Your task to perform on an android device: Go to ESPN.com Image 0: 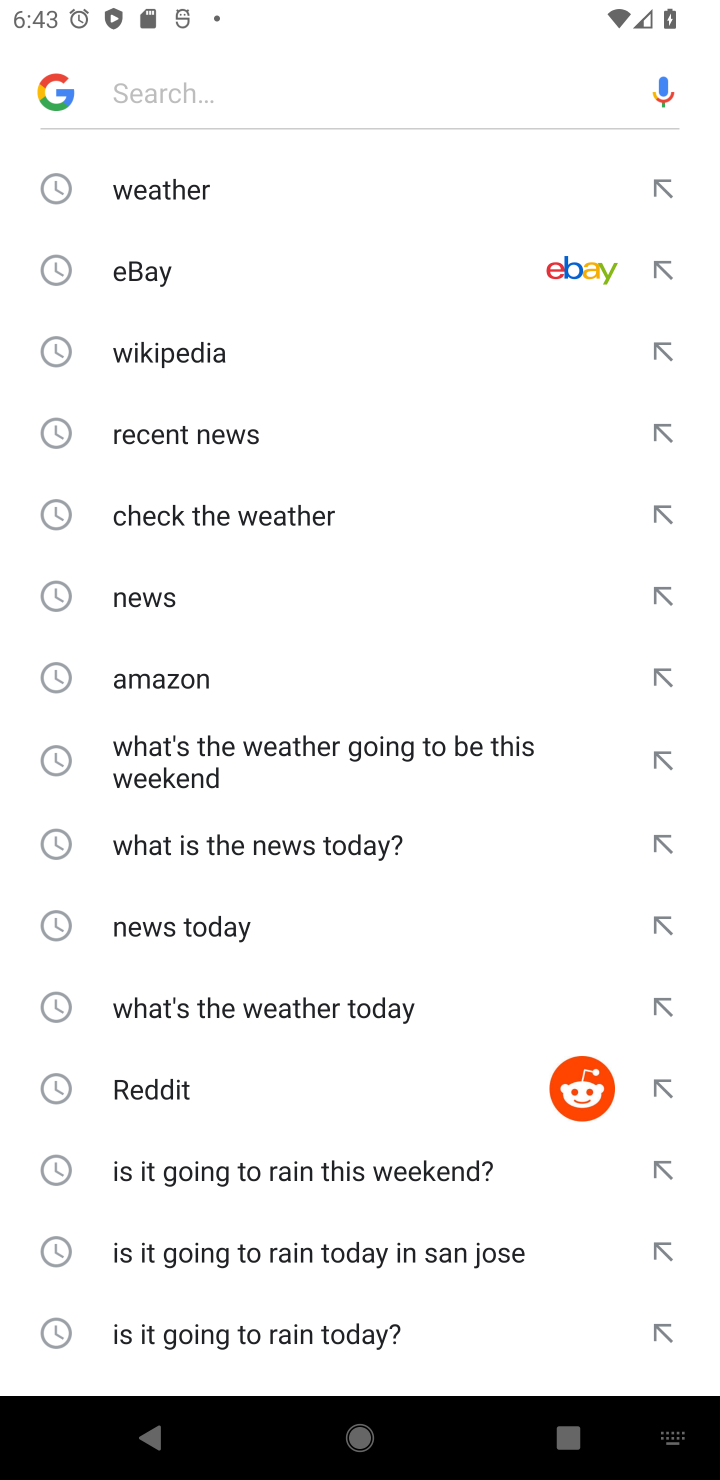
Step 0: press home button
Your task to perform on an android device: Go to ESPN.com Image 1: 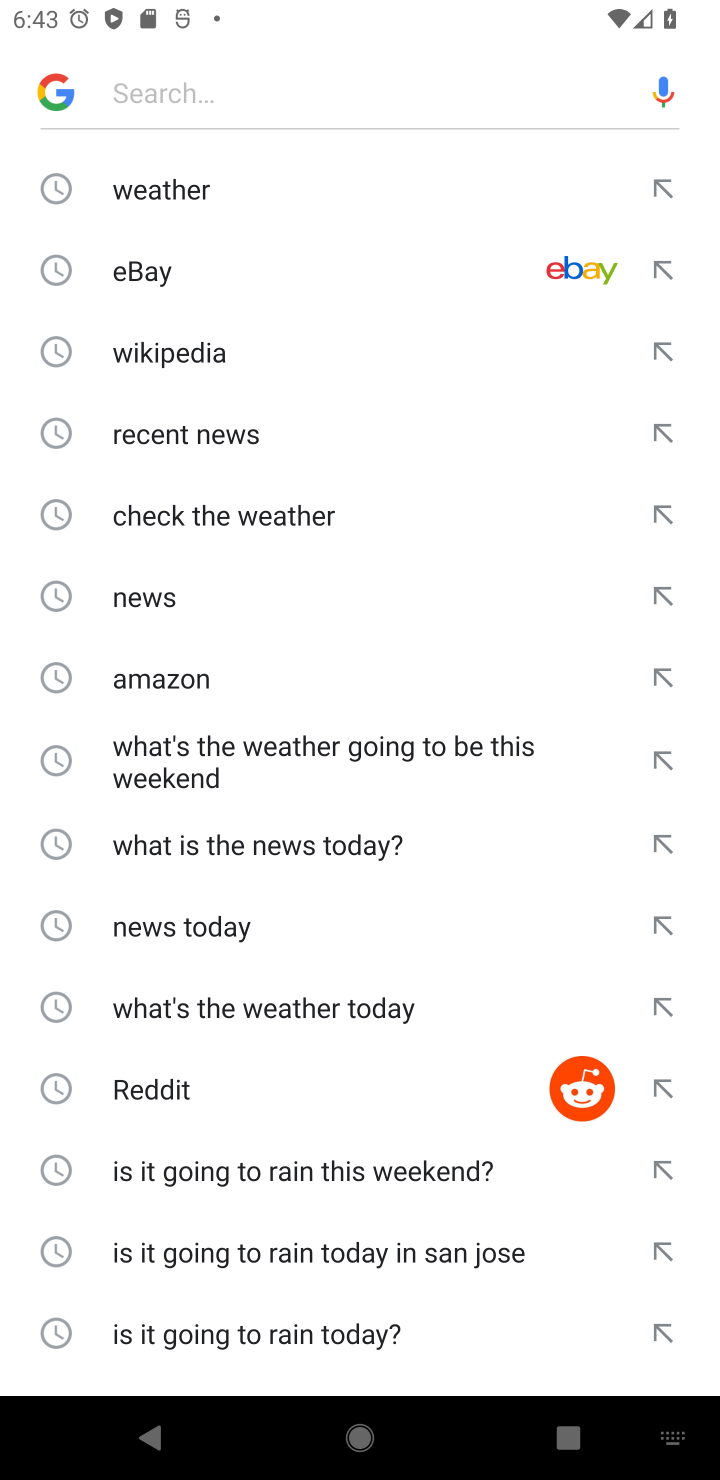
Step 1: type "espn"
Your task to perform on an android device: Go to ESPN.com Image 2: 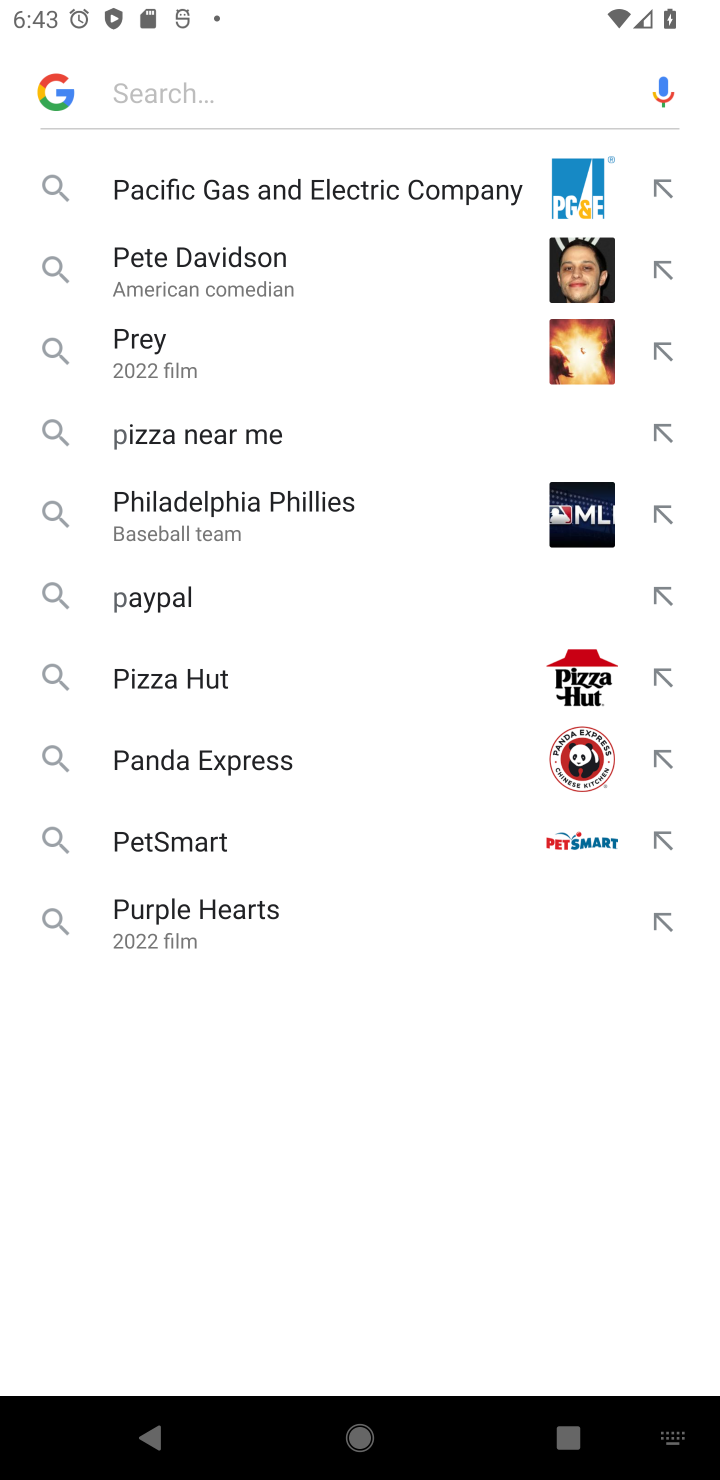
Step 2: press home button
Your task to perform on an android device: Go to ESPN.com Image 3: 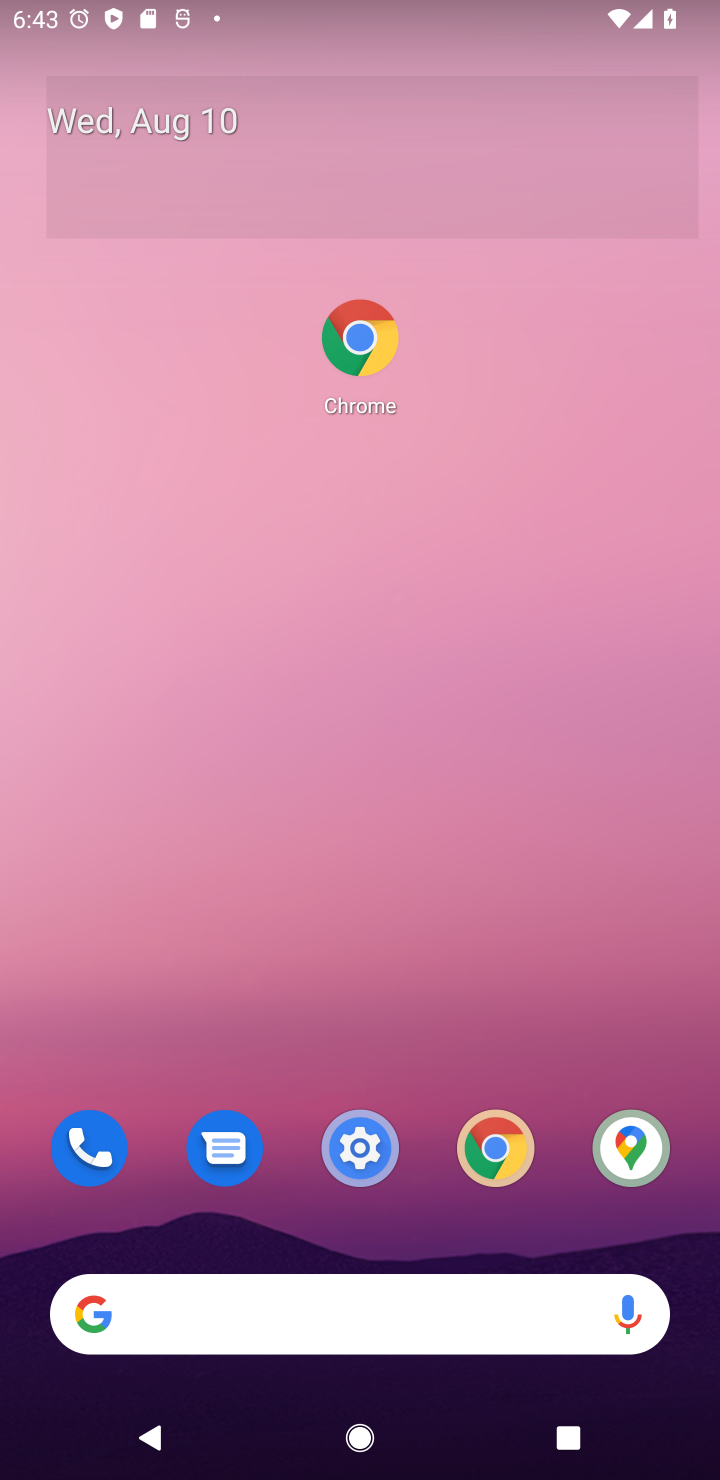
Step 3: click (486, 1145)
Your task to perform on an android device: Go to ESPN.com Image 4: 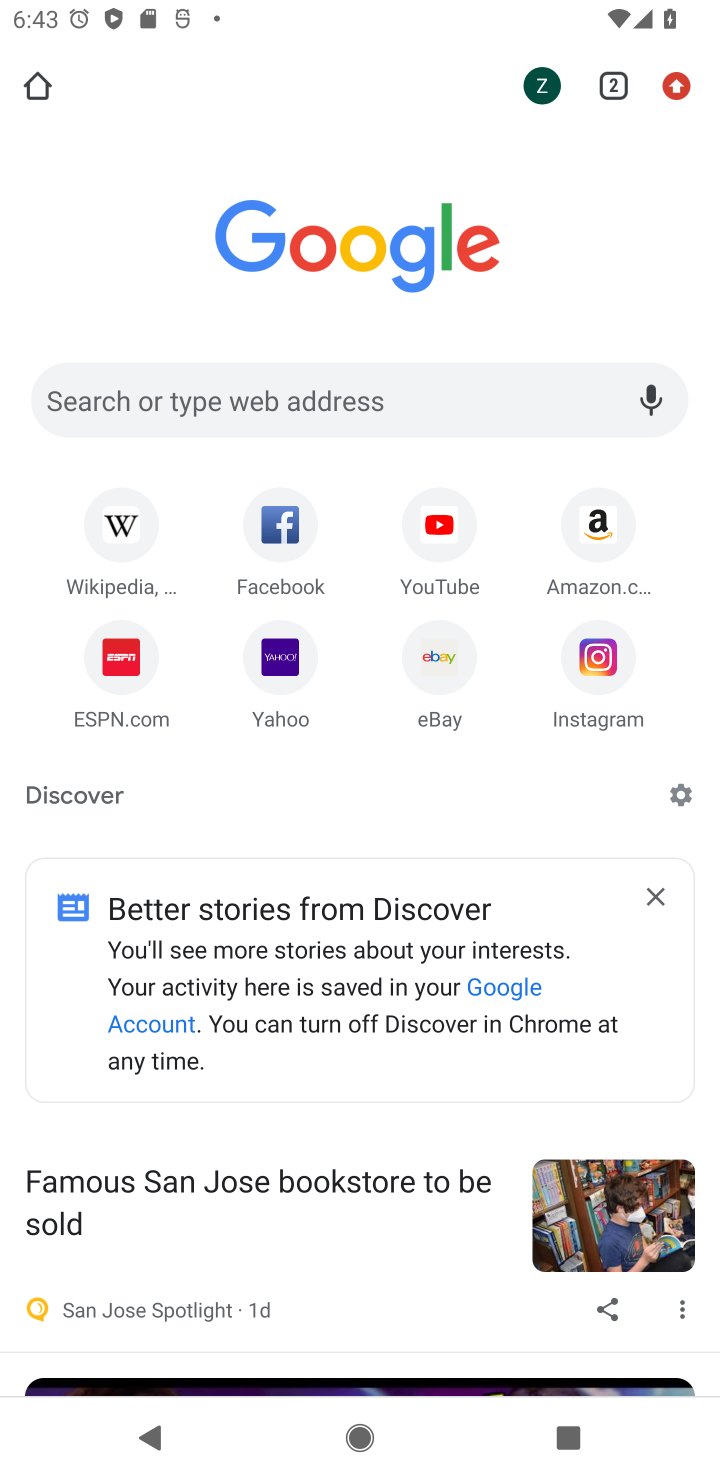
Step 4: click (117, 660)
Your task to perform on an android device: Go to ESPN.com Image 5: 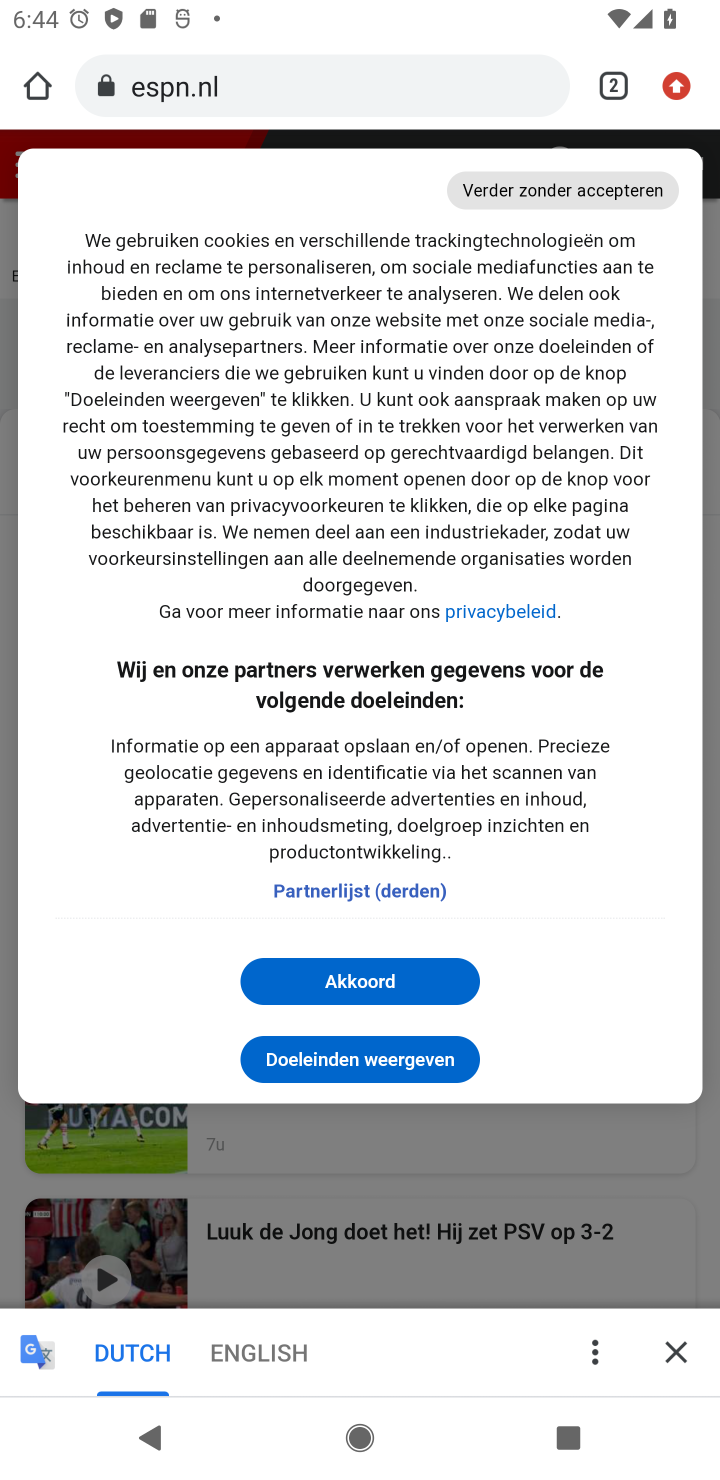
Step 5: click (335, 984)
Your task to perform on an android device: Go to ESPN.com Image 6: 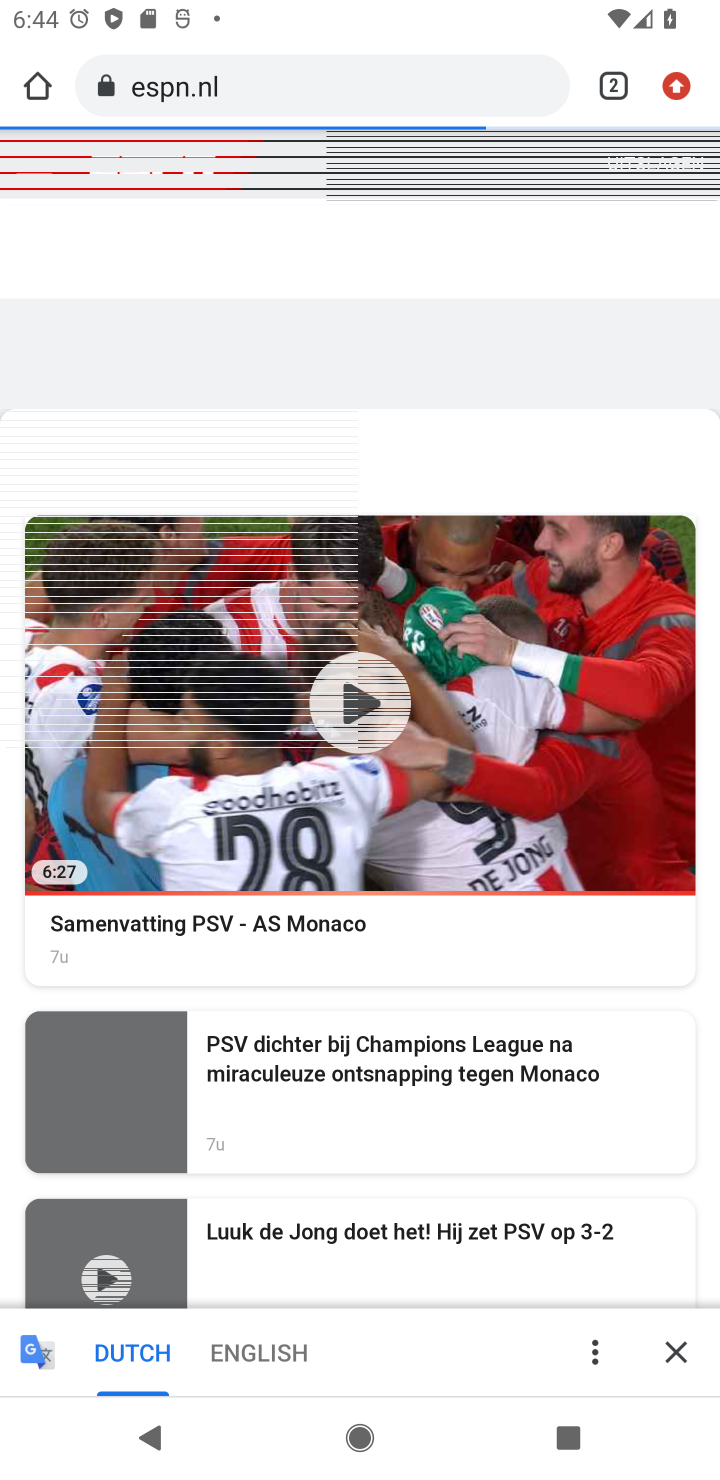
Step 6: task complete